Your task to perform on an android device: Open accessibility settings Image 0: 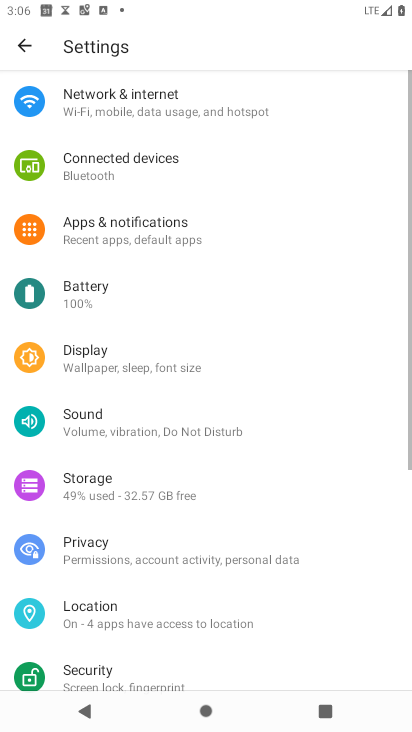
Step 0: drag from (188, 613) to (242, 350)
Your task to perform on an android device: Open accessibility settings Image 1: 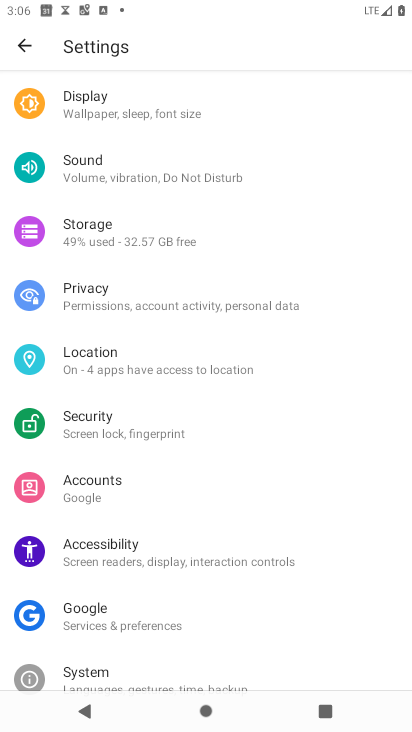
Step 1: click (145, 551)
Your task to perform on an android device: Open accessibility settings Image 2: 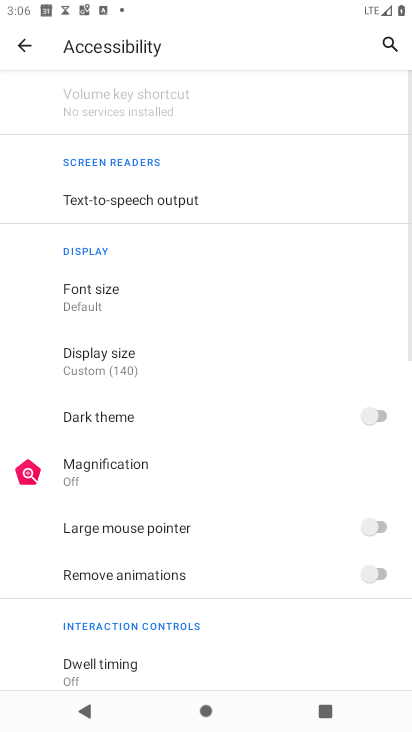
Step 2: task complete